Your task to perform on an android device: toggle pop-ups in chrome Image 0: 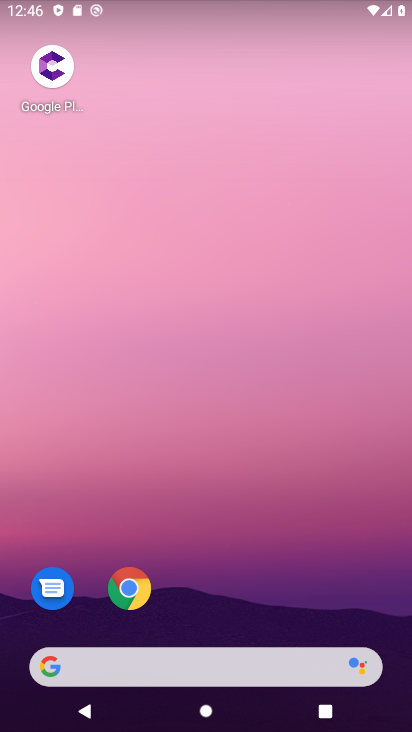
Step 0: click (120, 601)
Your task to perform on an android device: toggle pop-ups in chrome Image 1: 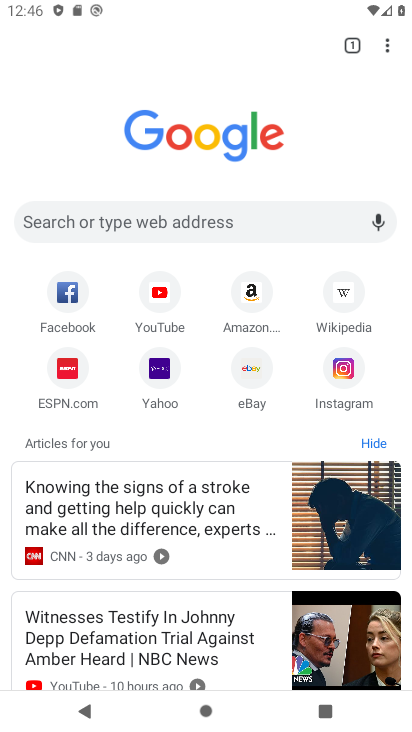
Step 1: click (400, 36)
Your task to perform on an android device: toggle pop-ups in chrome Image 2: 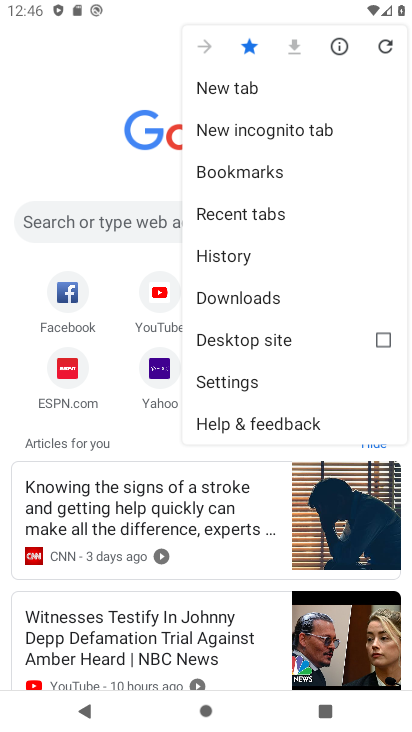
Step 2: click (224, 377)
Your task to perform on an android device: toggle pop-ups in chrome Image 3: 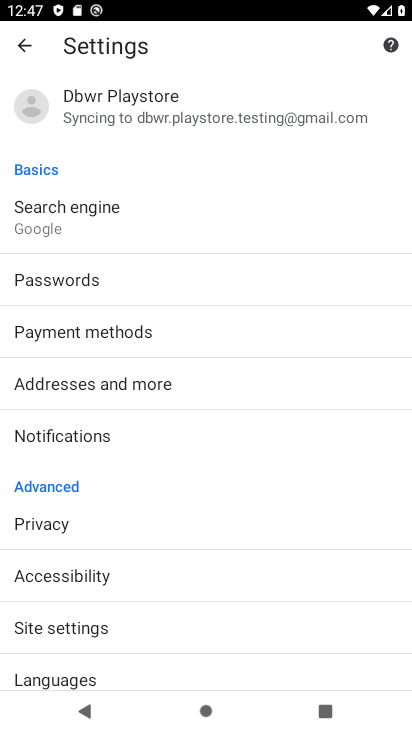
Step 3: click (123, 618)
Your task to perform on an android device: toggle pop-ups in chrome Image 4: 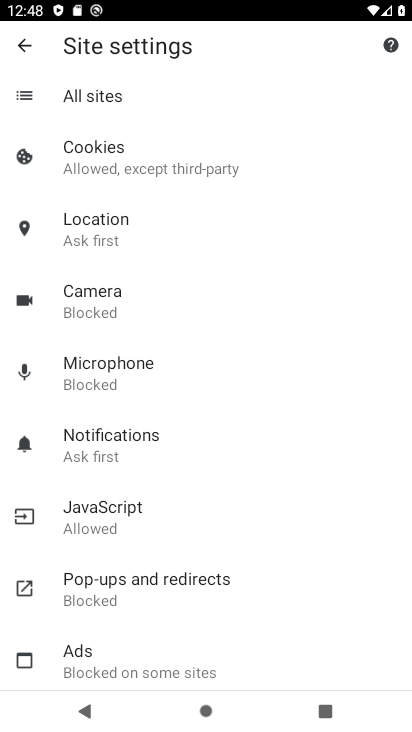
Step 4: click (153, 591)
Your task to perform on an android device: toggle pop-ups in chrome Image 5: 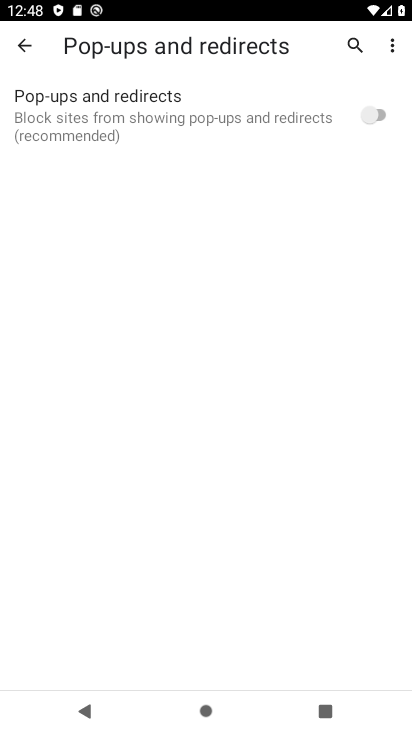
Step 5: click (378, 112)
Your task to perform on an android device: toggle pop-ups in chrome Image 6: 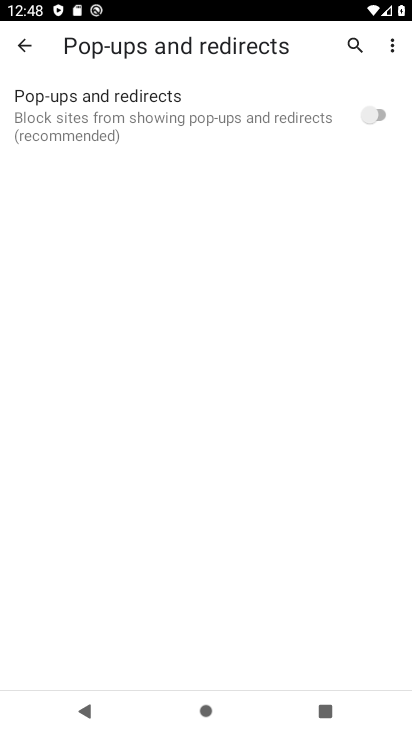
Step 6: click (378, 112)
Your task to perform on an android device: toggle pop-ups in chrome Image 7: 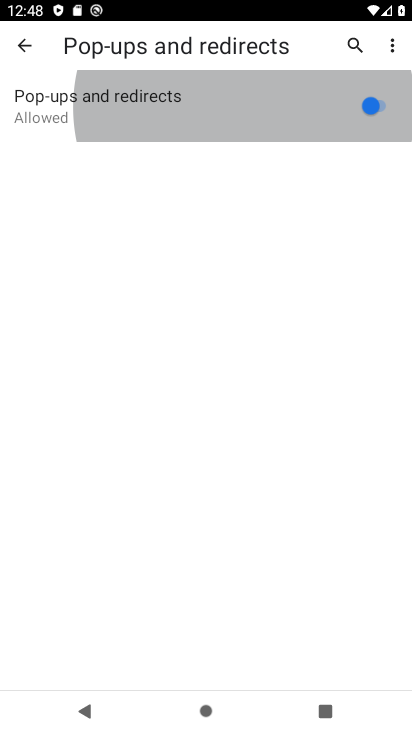
Step 7: click (378, 112)
Your task to perform on an android device: toggle pop-ups in chrome Image 8: 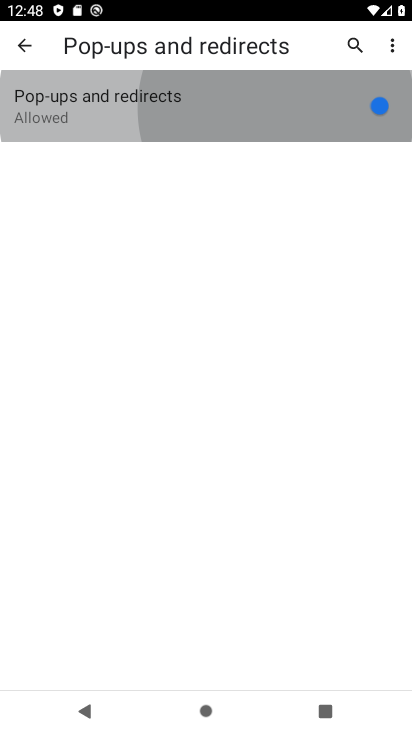
Step 8: click (378, 112)
Your task to perform on an android device: toggle pop-ups in chrome Image 9: 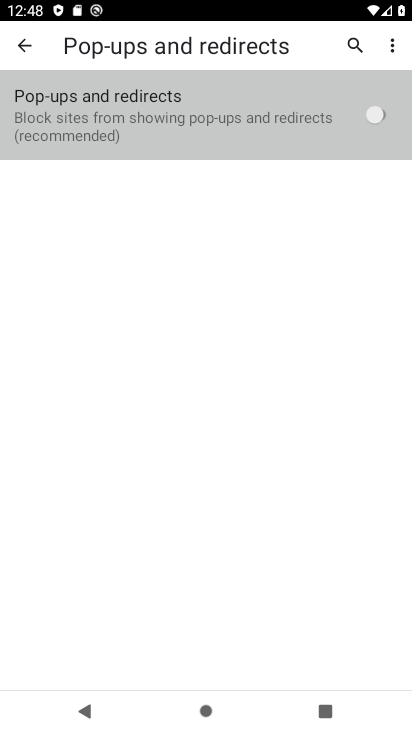
Step 9: click (378, 112)
Your task to perform on an android device: toggle pop-ups in chrome Image 10: 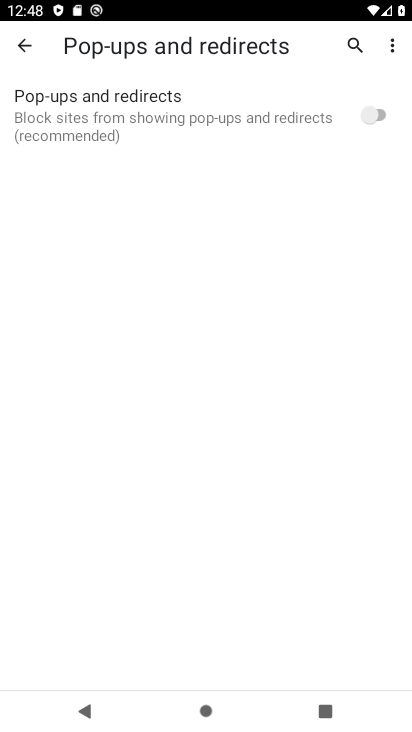
Step 10: task complete